Your task to perform on an android device: turn off data saver in the chrome app Image 0: 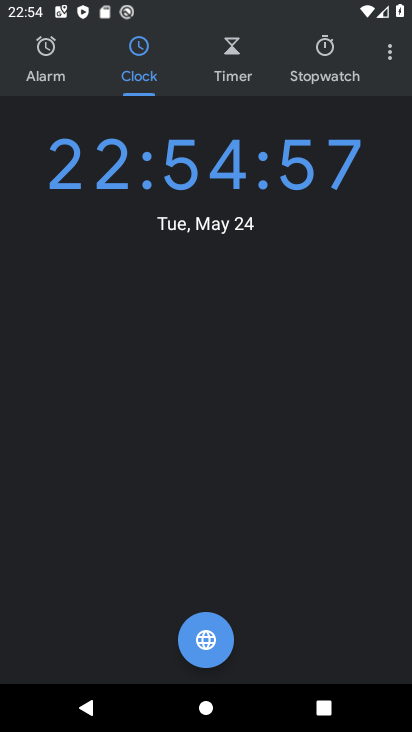
Step 0: press home button
Your task to perform on an android device: turn off data saver in the chrome app Image 1: 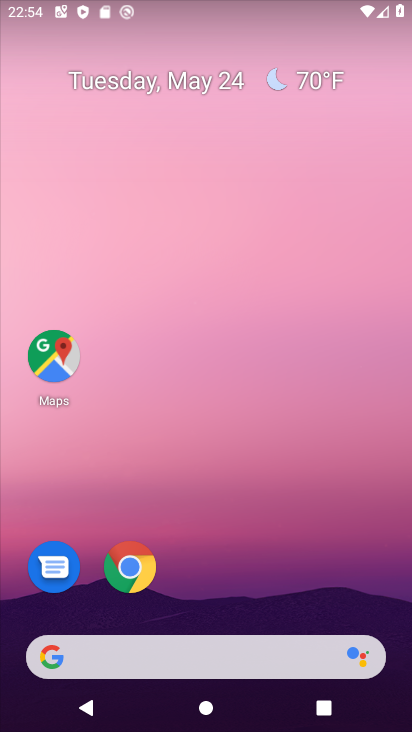
Step 1: click (132, 568)
Your task to perform on an android device: turn off data saver in the chrome app Image 2: 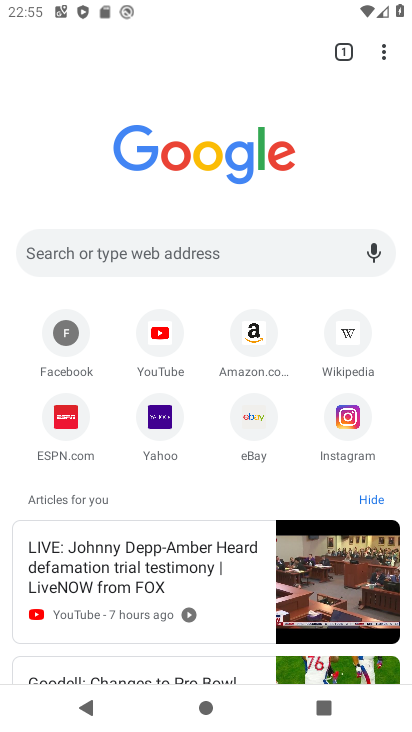
Step 2: click (387, 48)
Your task to perform on an android device: turn off data saver in the chrome app Image 3: 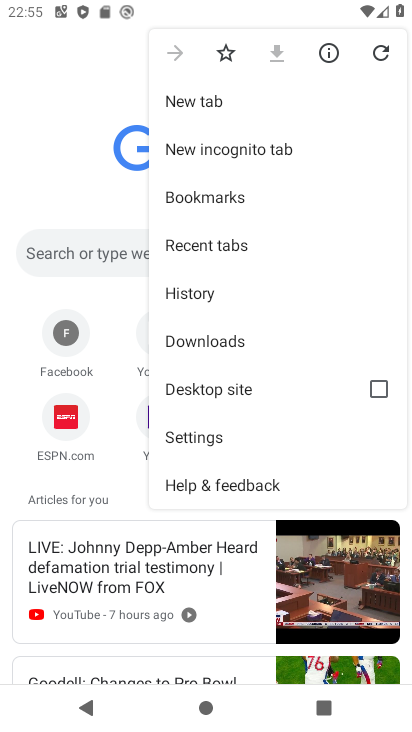
Step 3: click (227, 434)
Your task to perform on an android device: turn off data saver in the chrome app Image 4: 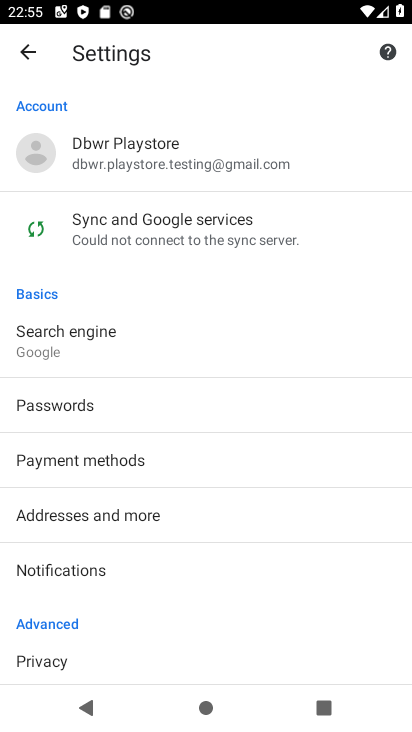
Step 4: drag from (187, 599) to (186, 115)
Your task to perform on an android device: turn off data saver in the chrome app Image 5: 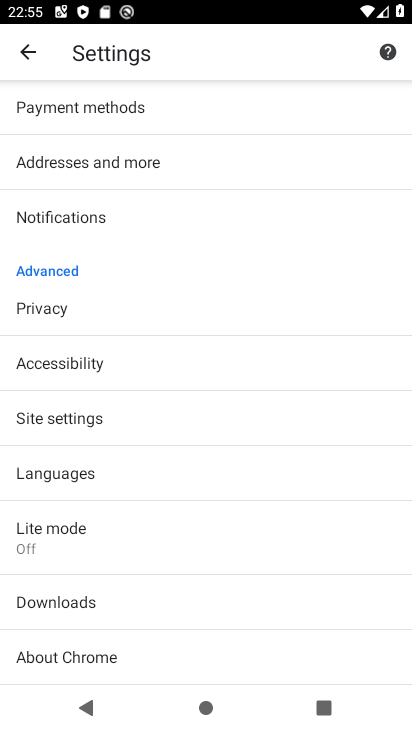
Step 5: click (123, 528)
Your task to perform on an android device: turn off data saver in the chrome app Image 6: 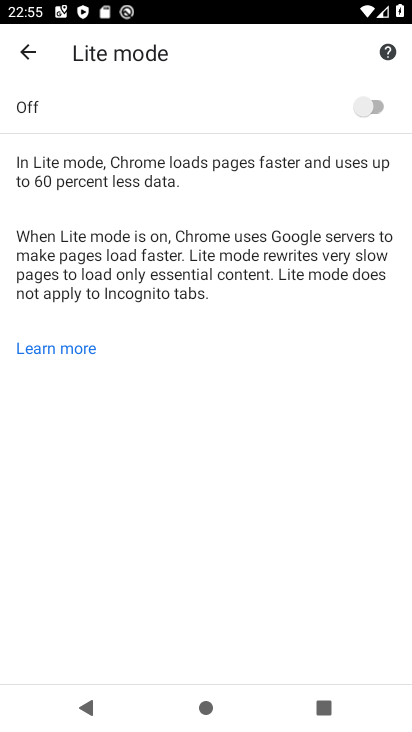
Step 6: task complete